Your task to perform on an android device: Add "macbook" to the cart on ebay Image 0: 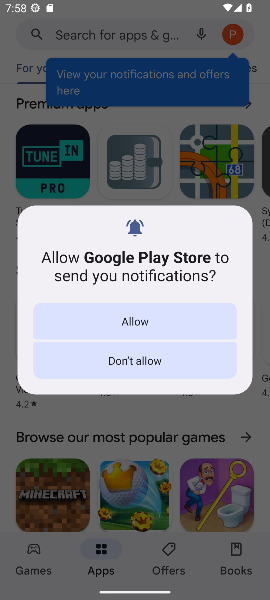
Step 0: press home button
Your task to perform on an android device: Add "macbook" to the cart on ebay Image 1: 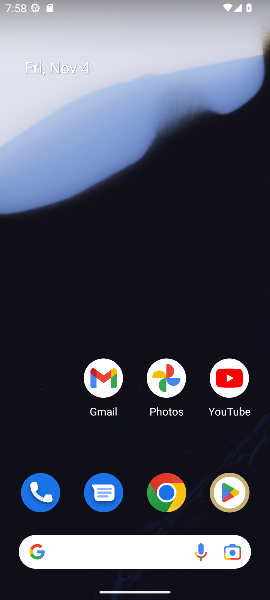
Step 1: drag from (134, 449) to (175, 43)
Your task to perform on an android device: Add "macbook" to the cart on ebay Image 2: 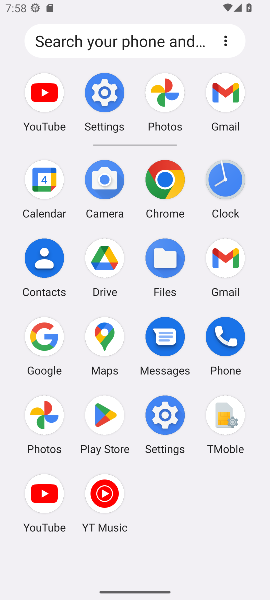
Step 2: click (167, 180)
Your task to perform on an android device: Add "macbook" to the cart on ebay Image 3: 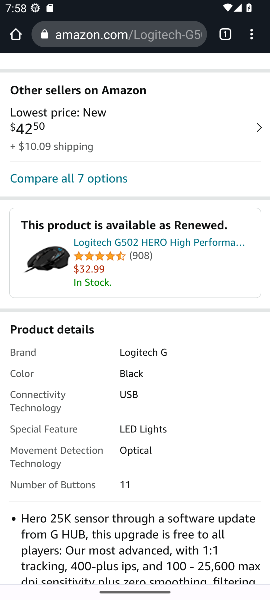
Step 3: click (114, 32)
Your task to perform on an android device: Add "macbook" to the cart on ebay Image 4: 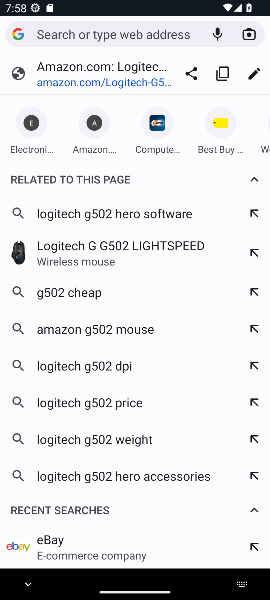
Step 4: type "ebay.com"
Your task to perform on an android device: Add "macbook" to the cart on ebay Image 5: 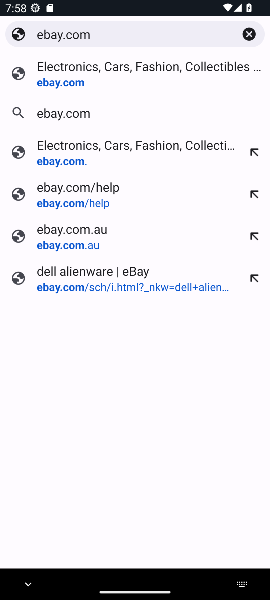
Step 5: press enter
Your task to perform on an android device: Add "macbook" to the cart on ebay Image 6: 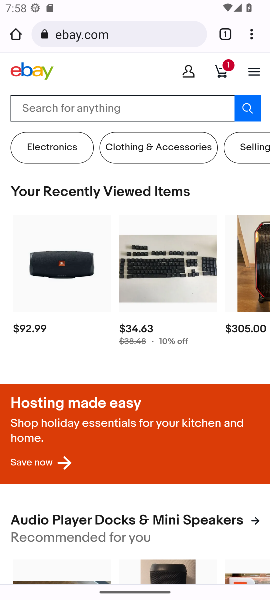
Step 6: click (161, 116)
Your task to perform on an android device: Add "macbook" to the cart on ebay Image 7: 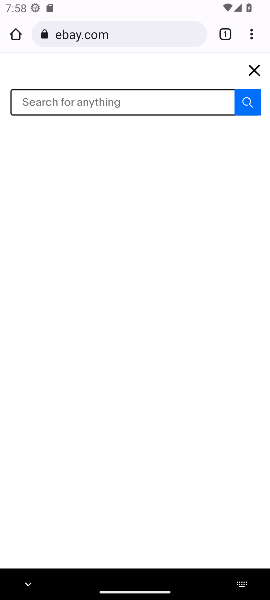
Step 7: type "macbook"
Your task to perform on an android device: Add "macbook" to the cart on ebay Image 8: 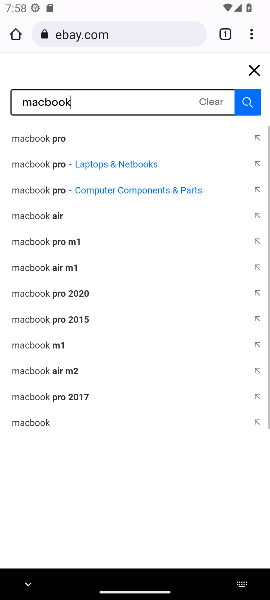
Step 8: press enter
Your task to perform on an android device: Add "macbook" to the cart on ebay Image 9: 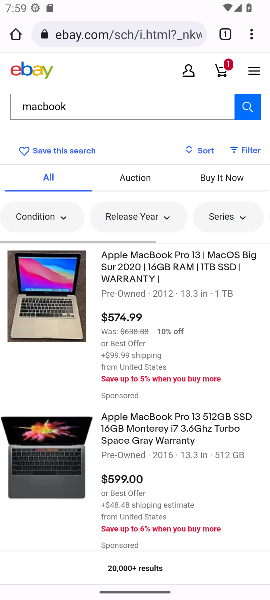
Step 9: click (120, 288)
Your task to perform on an android device: Add "macbook" to the cart on ebay Image 10: 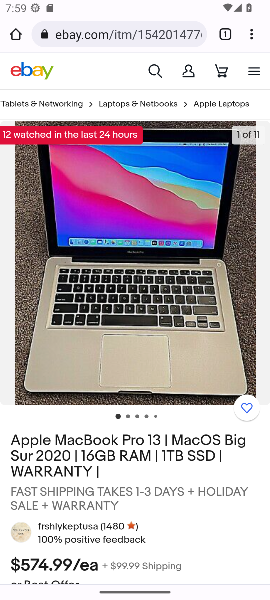
Step 10: drag from (186, 473) to (210, 99)
Your task to perform on an android device: Add "macbook" to the cart on ebay Image 11: 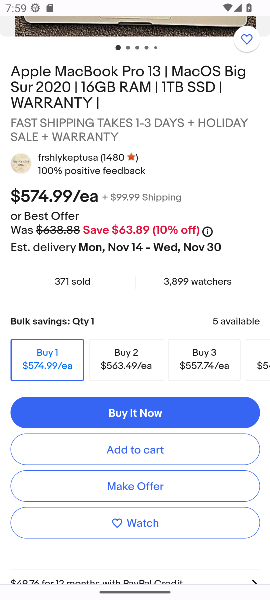
Step 11: click (196, 452)
Your task to perform on an android device: Add "macbook" to the cart on ebay Image 12: 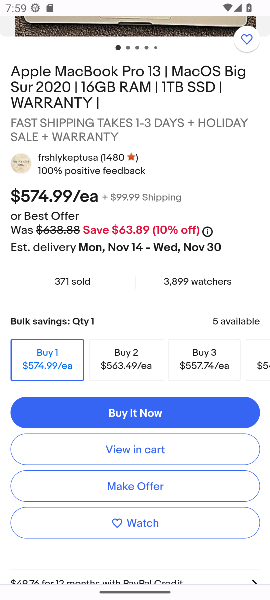
Step 12: task complete